Your task to perform on an android device: find photos in the google photos app Image 0: 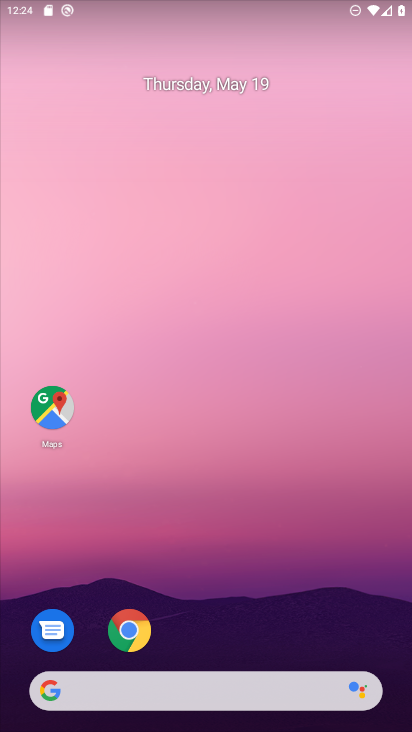
Step 0: drag from (225, 608) to (232, 183)
Your task to perform on an android device: find photos in the google photos app Image 1: 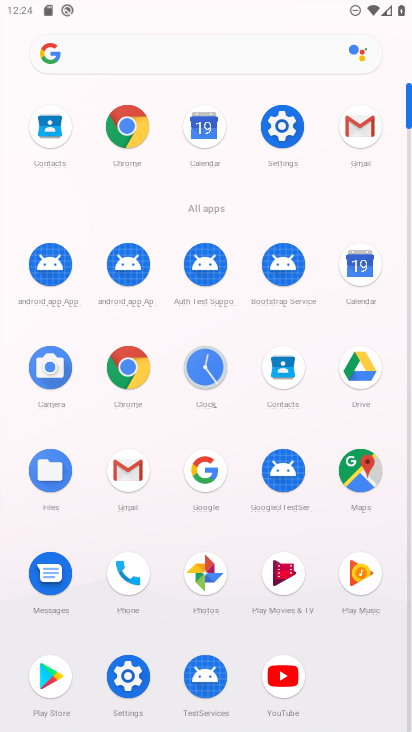
Step 1: click (218, 575)
Your task to perform on an android device: find photos in the google photos app Image 2: 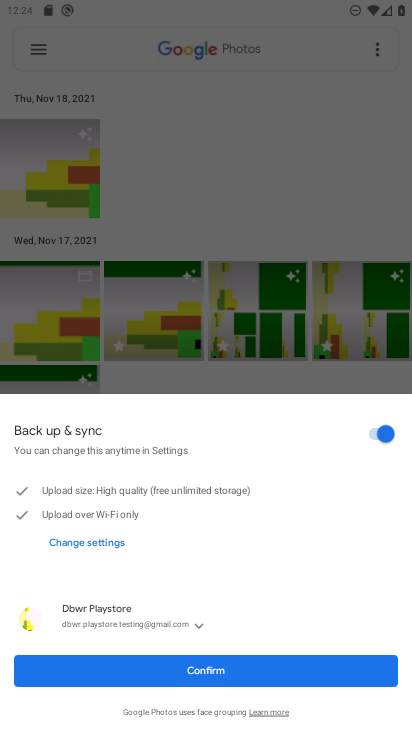
Step 2: click (202, 667)
Your task to perform on an android device: find photos in the google photos app Image 3: 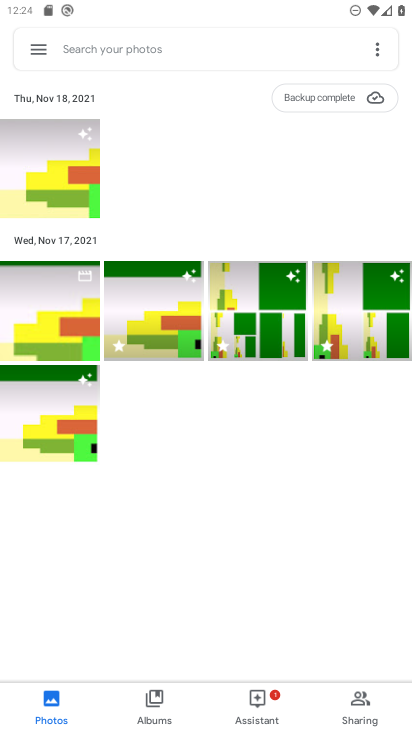
Step 3: task complete